Your task to perform on an android device: Go to Yahoo.com Image 0: 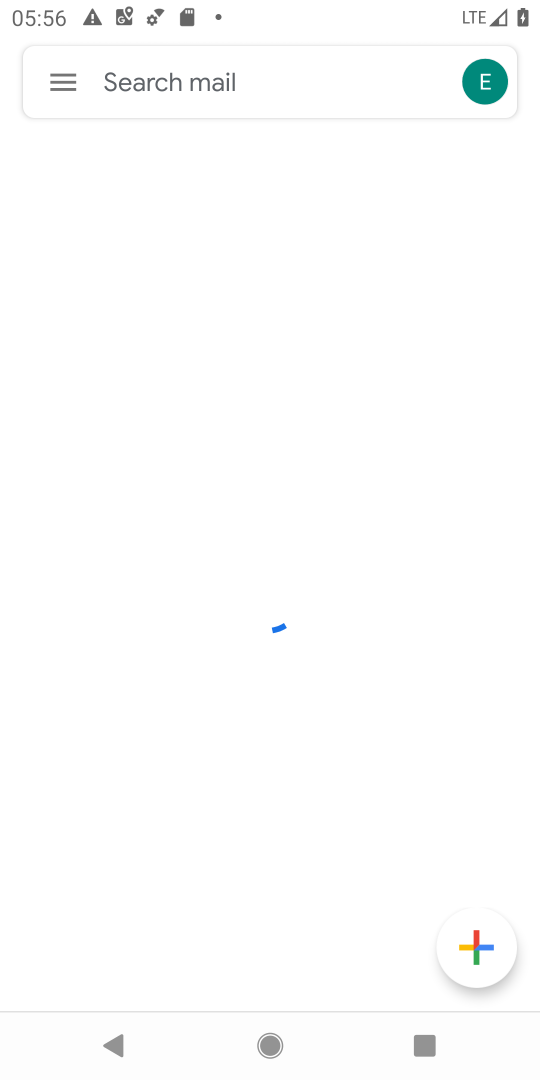
Step 0: press home button
Your task to perform on an android device: Go to Yahoo.com Image 1: 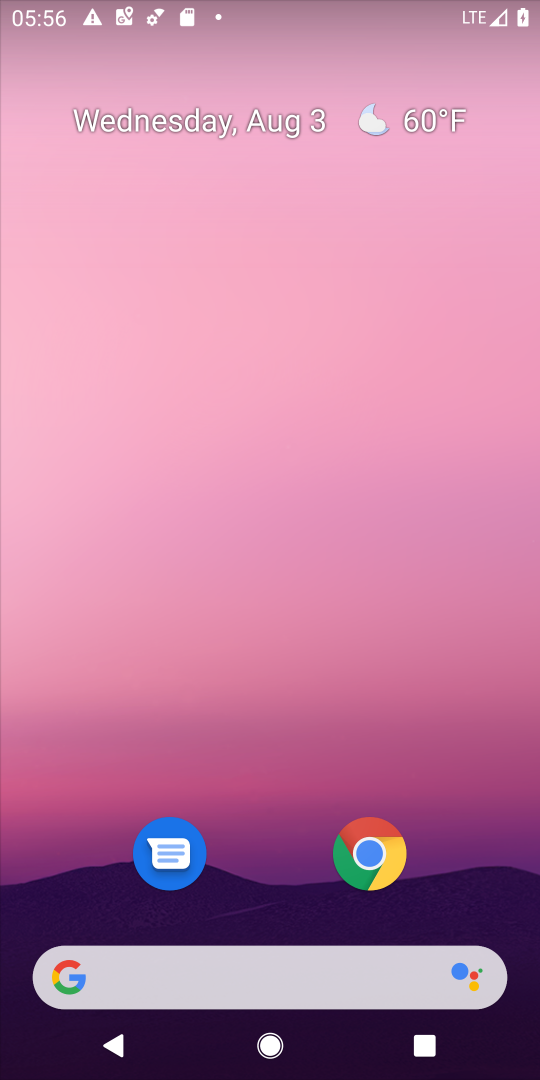
Step 1: click (378, 858)
Your task to perform on an android device: Go to Yahoo.com Image 2: 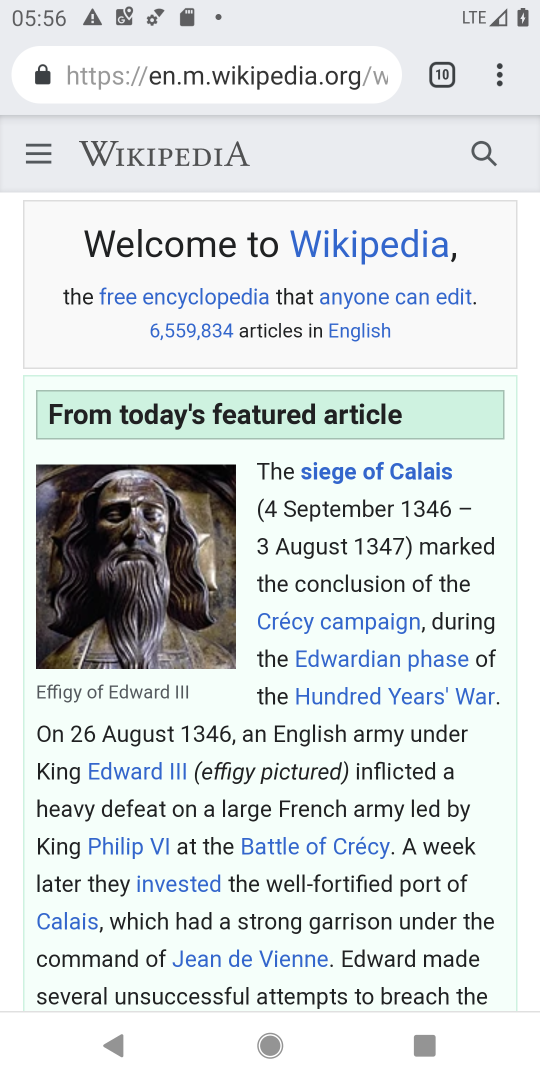
Step 2: click (500, 84)
Your task to perform on an android device: Go to Yahoo.com Image 3: 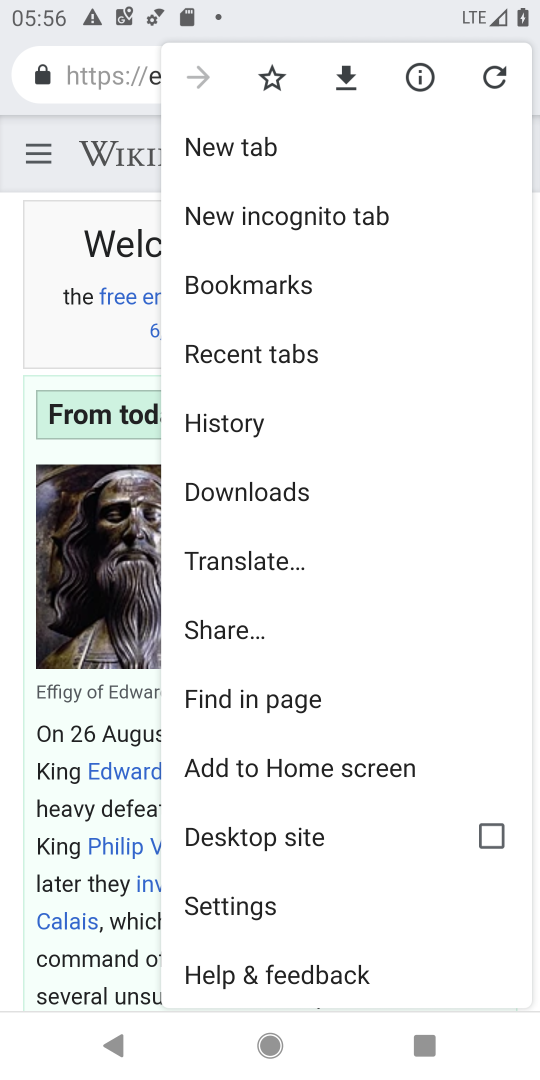
Step 3: click (241, 138)
Your task to perform on an android device: Go to Yahoo.com Image 4: 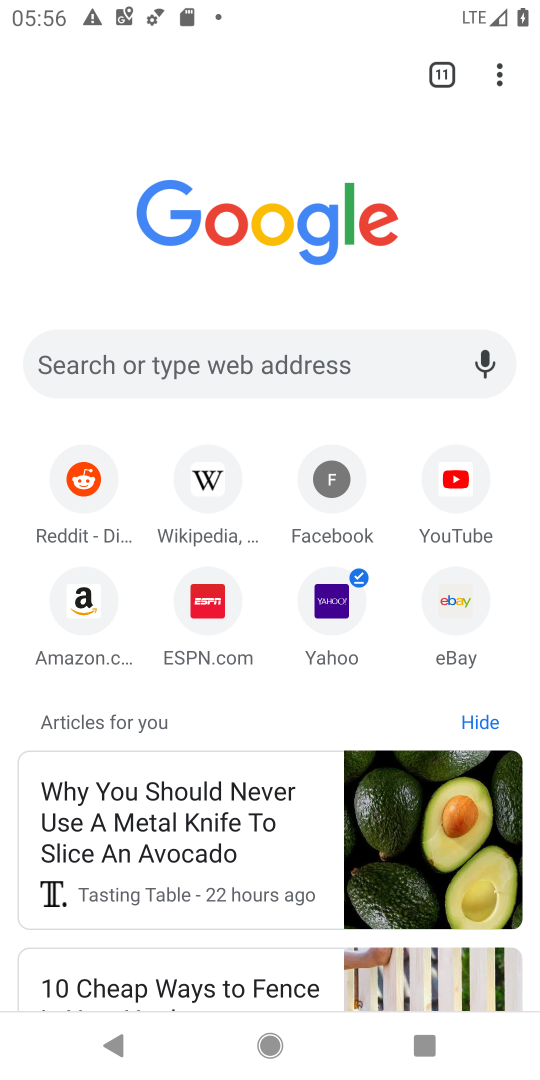
Step 4: click (322, 599)
Your task to perform on an android device: Go to Yahoo.com Image 5: 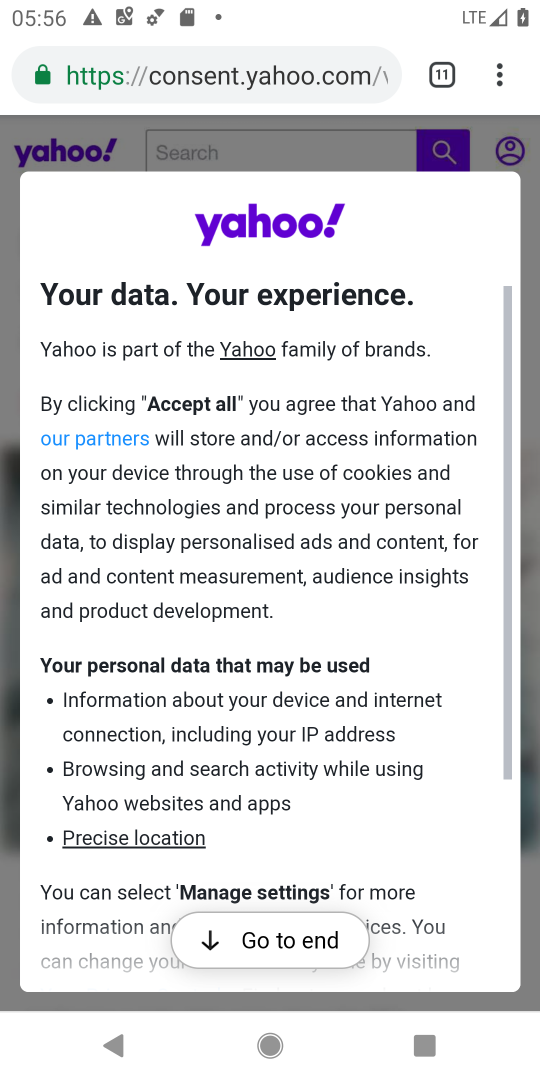
Step 5: task complete